Your task to perform on an android device: uninstall "Instagram" Image 0: 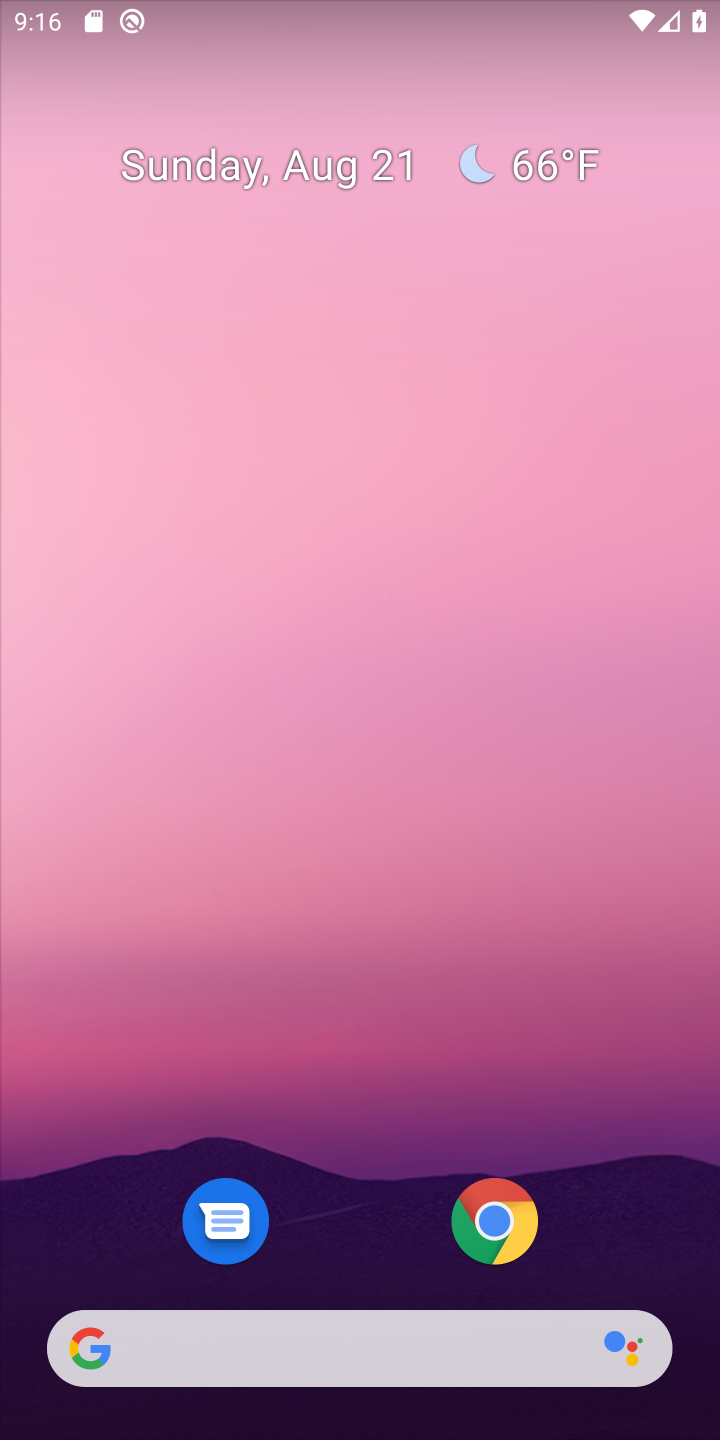
Step 0: drag from (388, 1161) to (371, 480)
Your task to perform on an android device: uninstall "Instagram" Image 1: 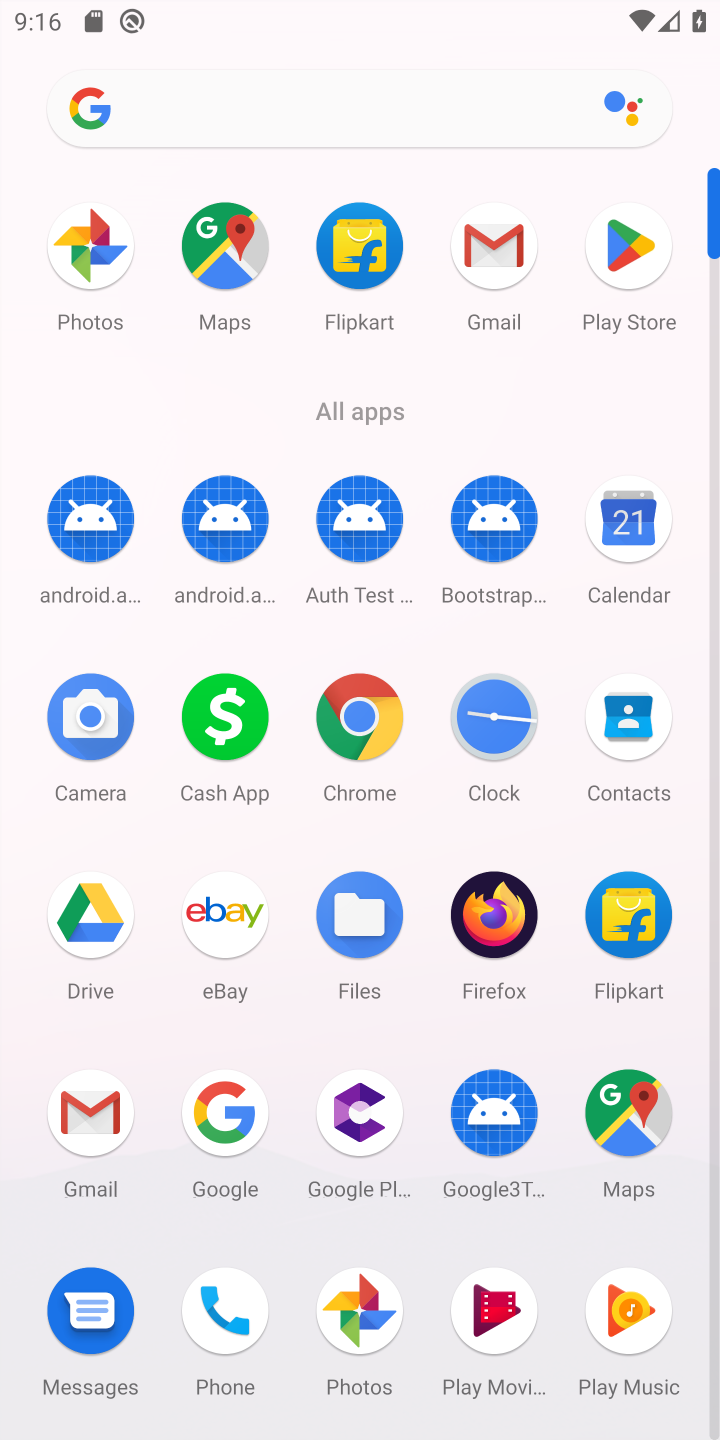
Step 1: click (604, 230)
Your task to perform on an android device: uninstall "Instagram" Image 2: 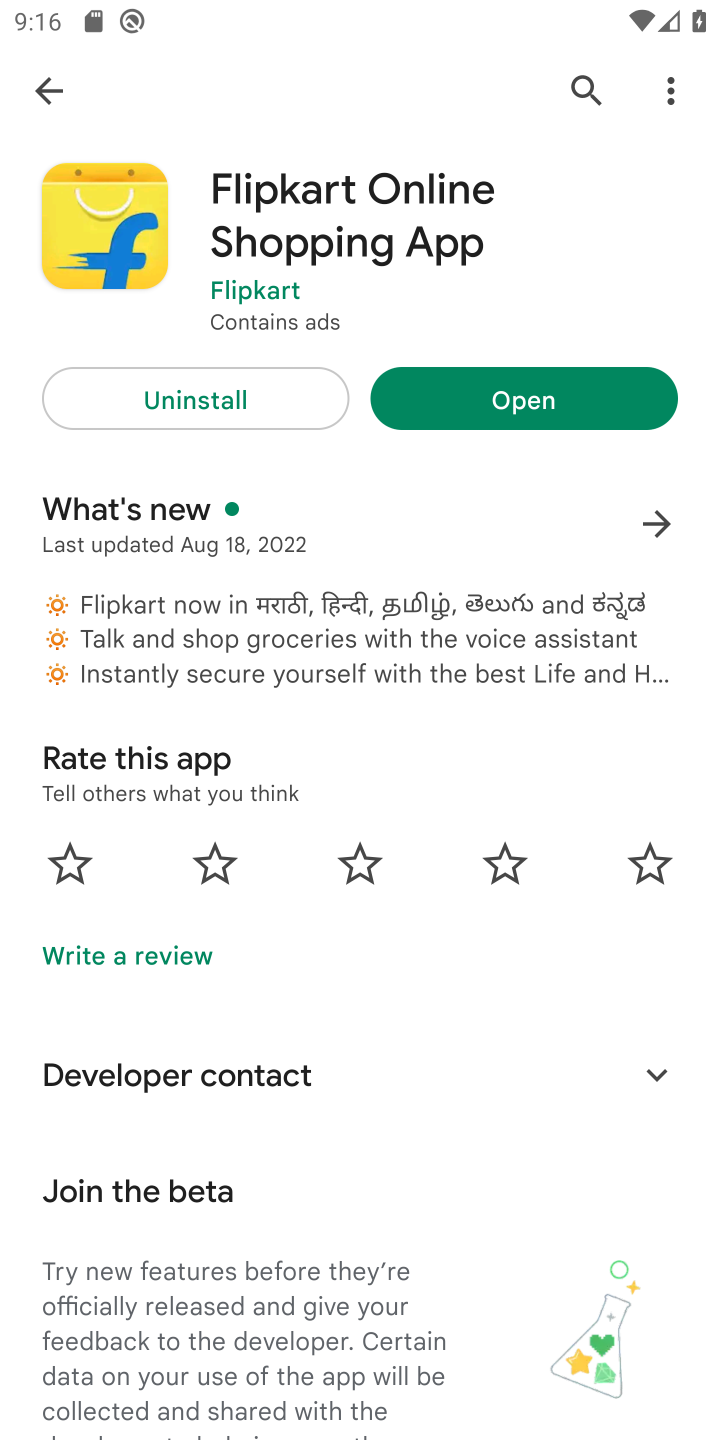
Step 2: click (578, 81)
Your task to perform on an android device: uninstall "Instagram" Image 3: 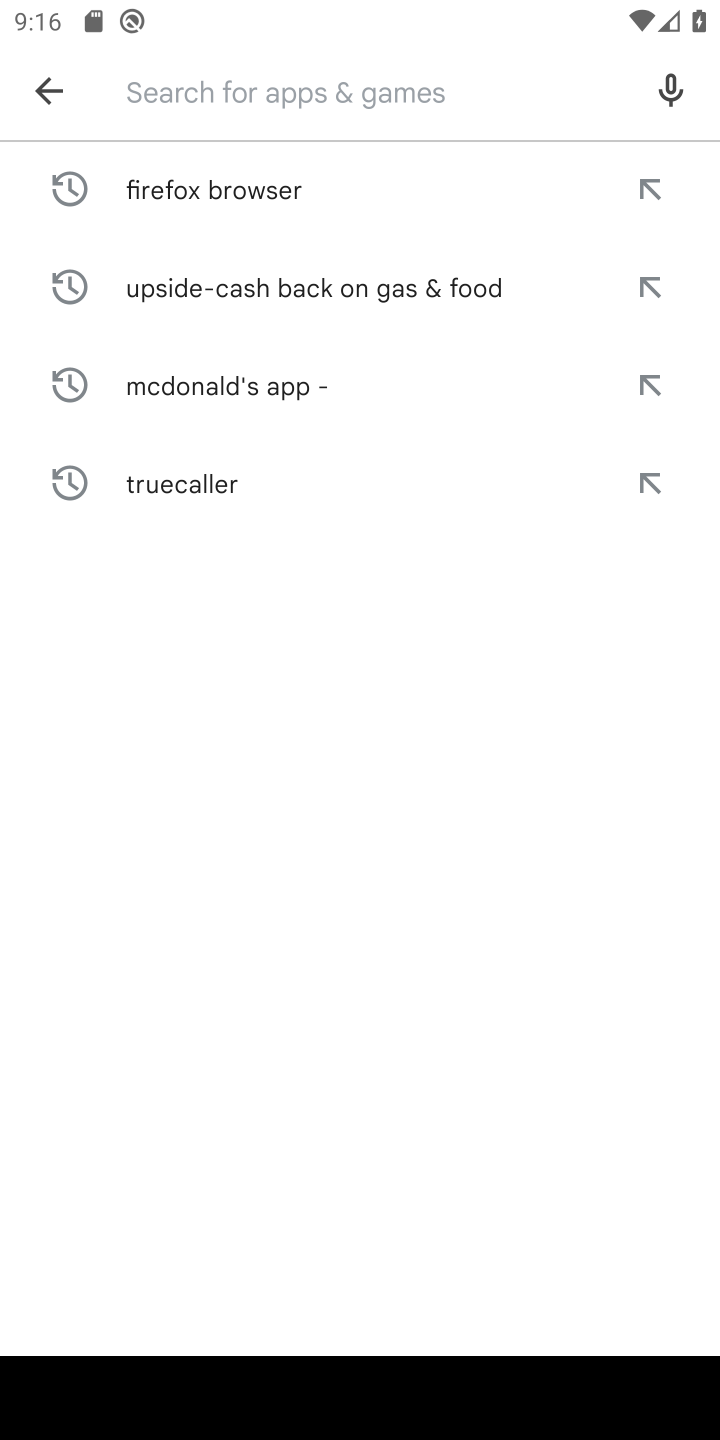
Step 3: type "Instagram"
Your task to perform on an android device: uninstall "Instagram" Image 4: 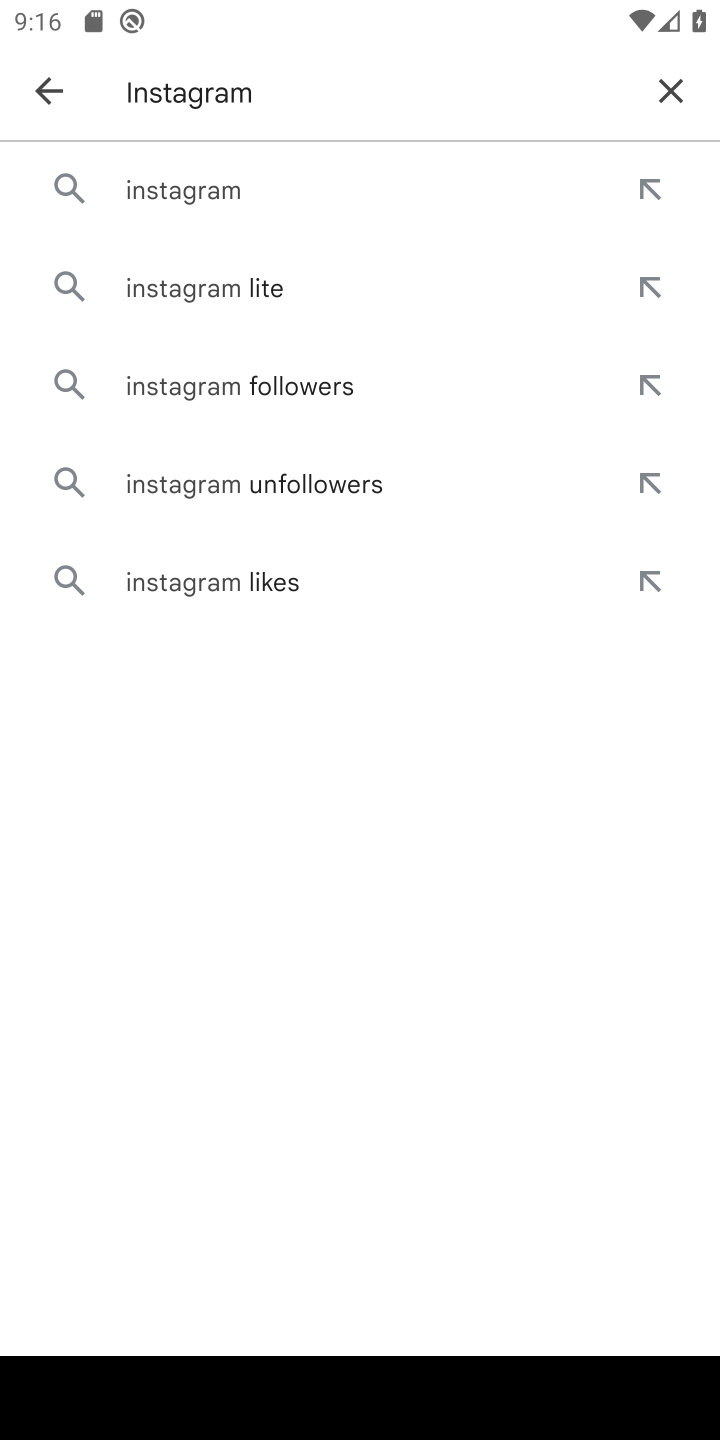
Step 4: click (244, 196)
Your task to perform on an android device: uninstall "Instagram" Image 5: 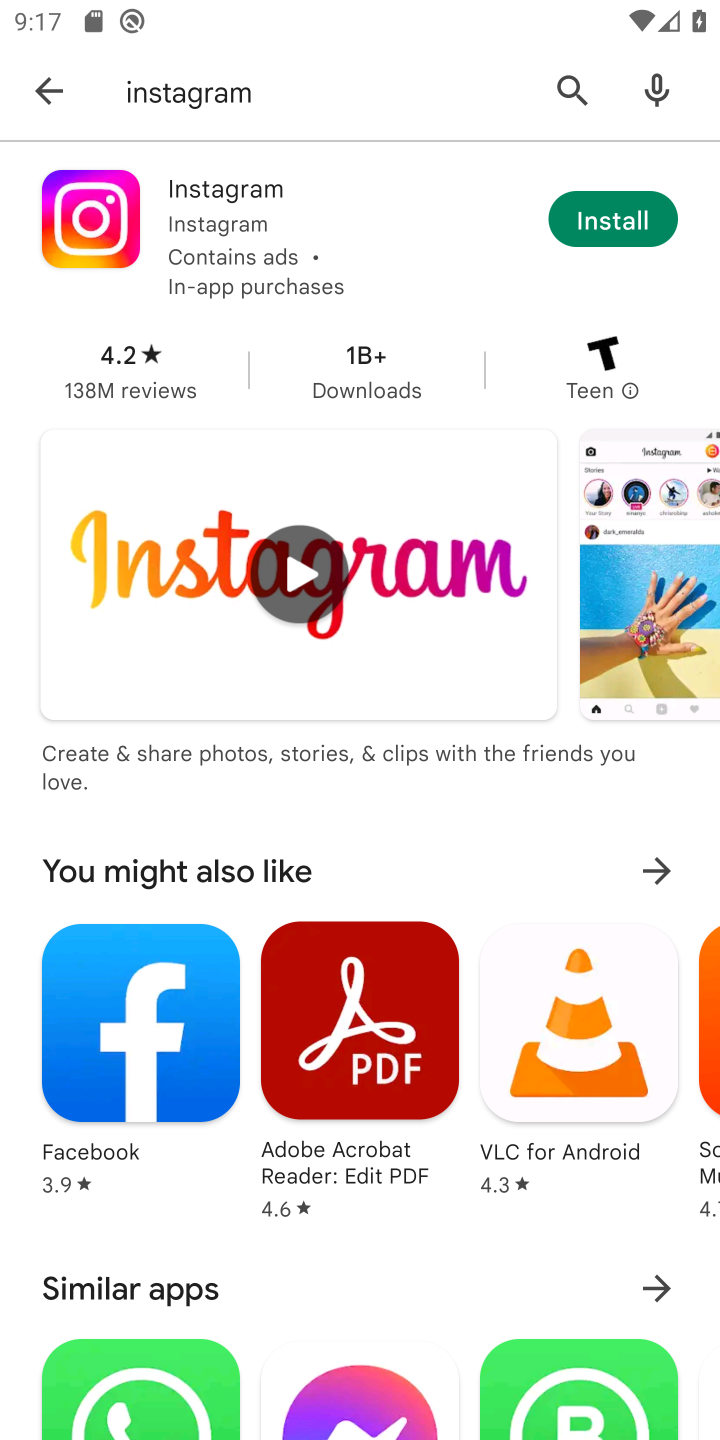
Step 5: task complete